Your task to perform on an android device: uninstall "Google Play services" Image 0: 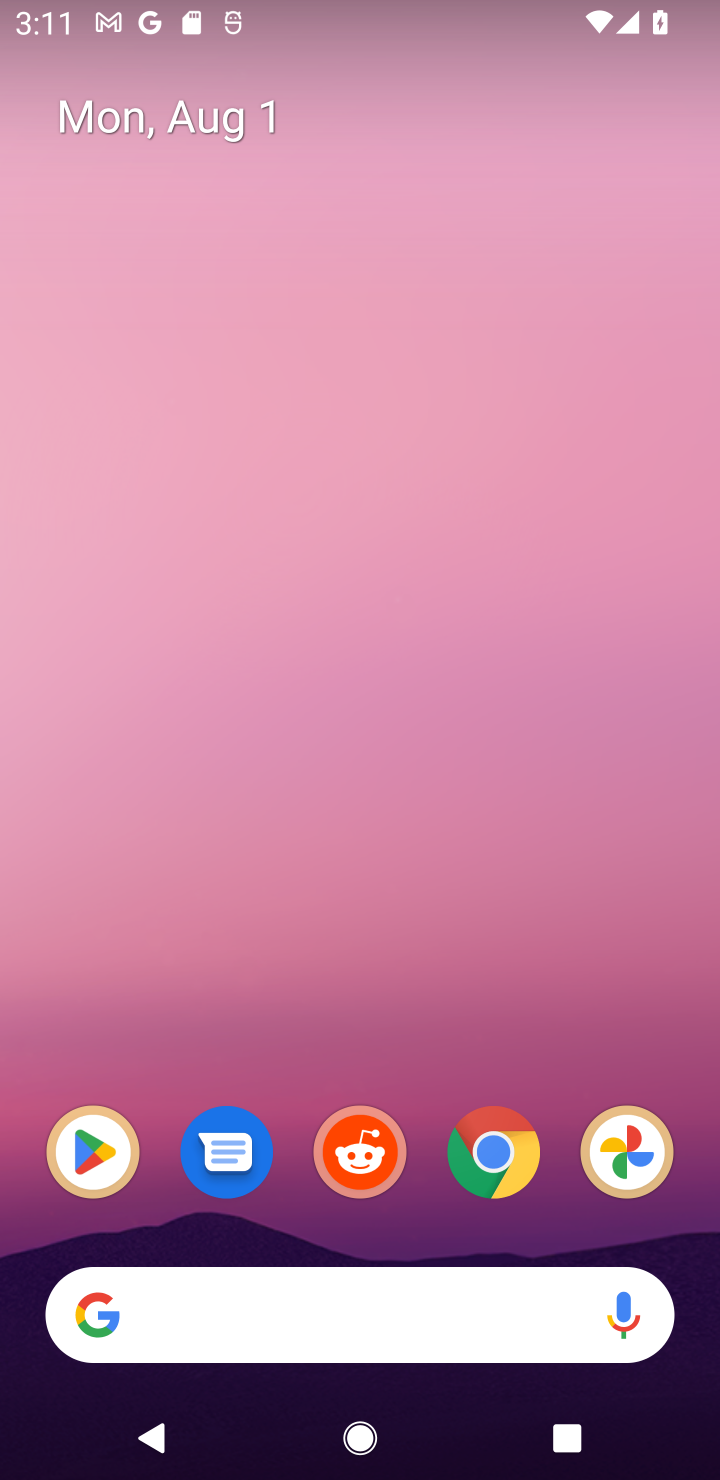
Step 0: click (132, 1152)
Your task to perform on an android device: uninstall "Google Play services" Image 1: 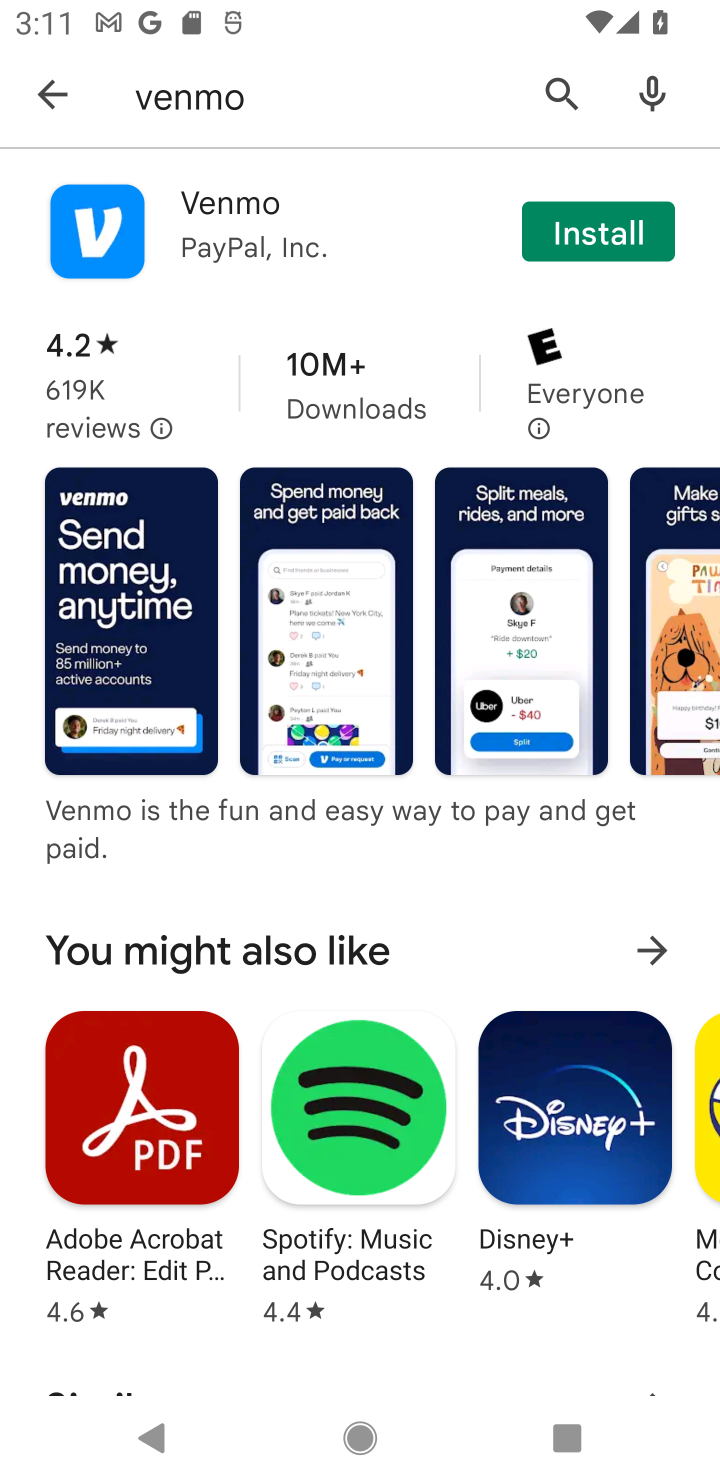
Step 1: click (31, 85)
Your task to perform on an android device: uninstall "Google Play services" Image 2: 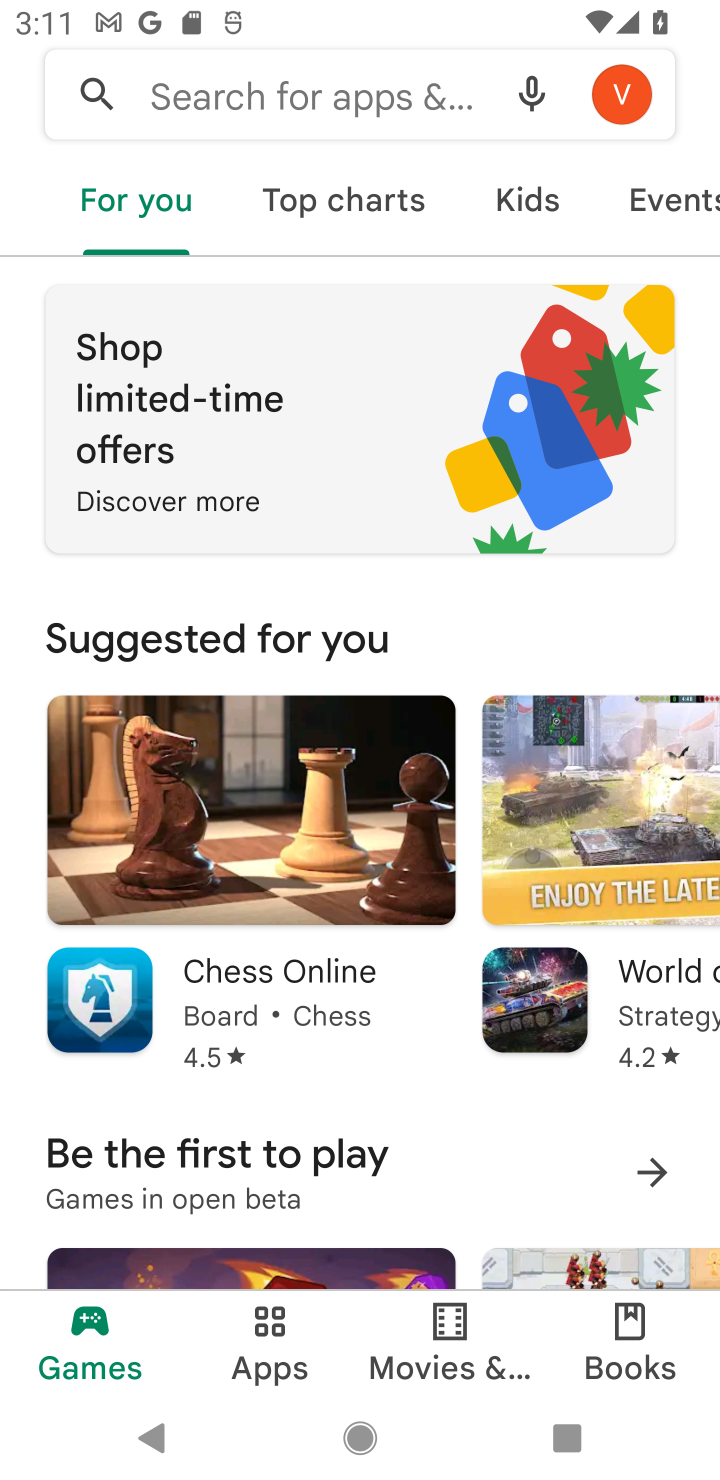
Step 2: click (141, 68)
Your task to perform on an android device: uninstall "Google Play services" Image 3: 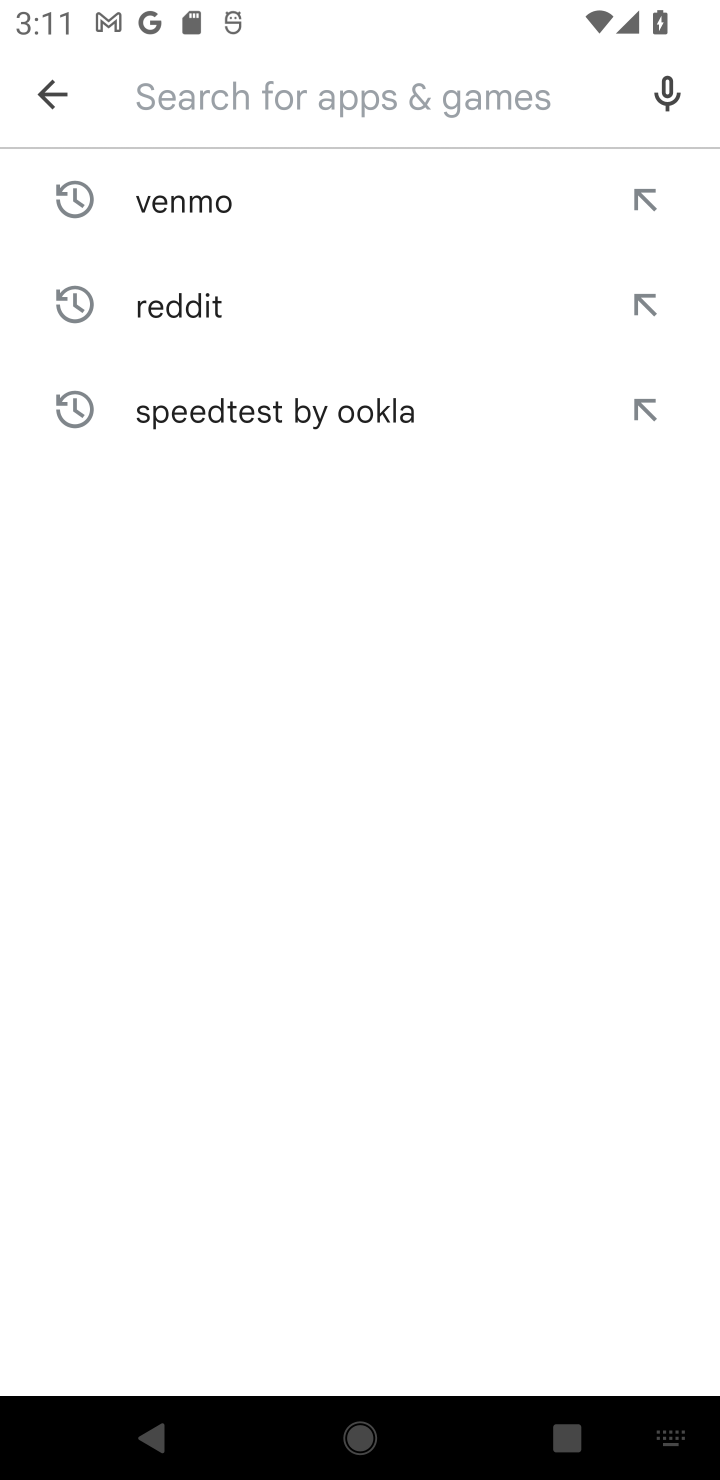
Step 3: click (681, 1371)
Your task to perform on an android device: uninstall "Google Play services" Image 4: 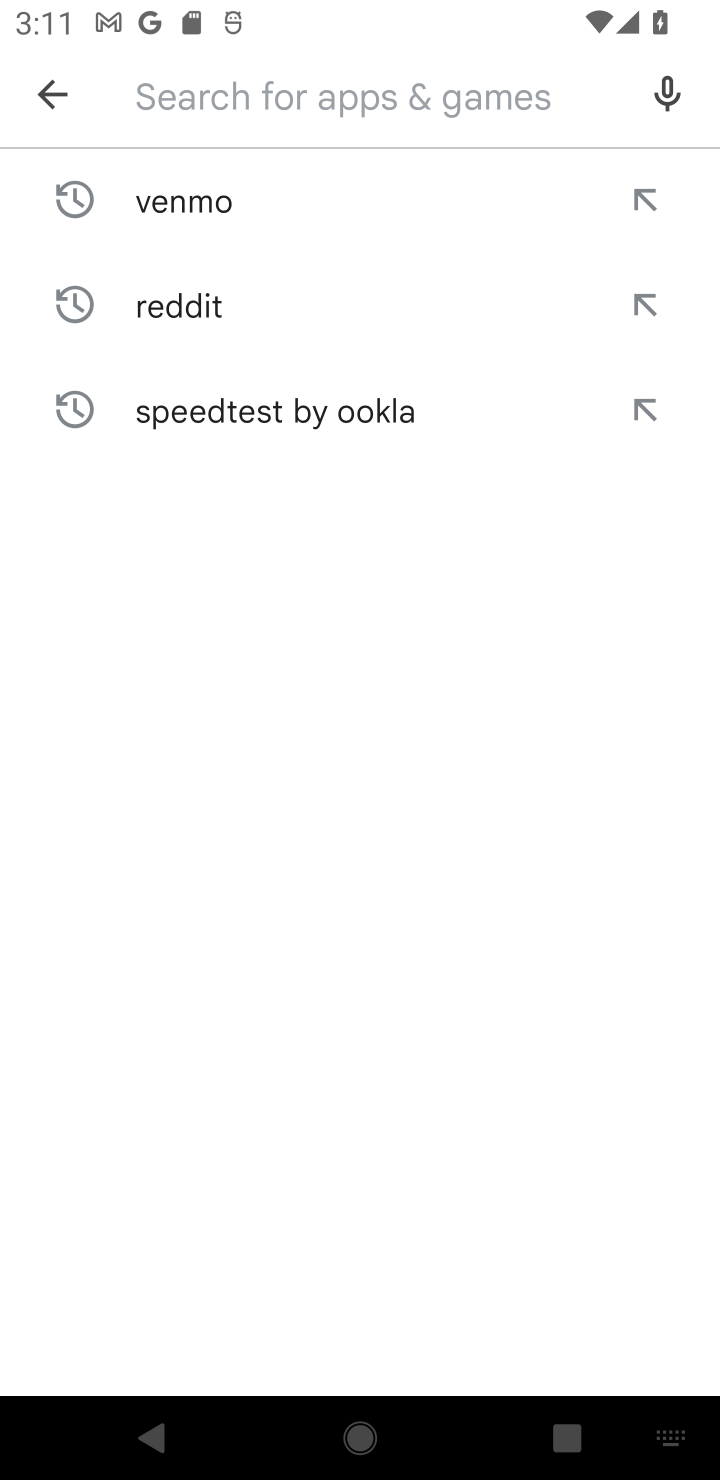
Step 4: type "Google Play services"
Your task to perform on an android device: uninstall "Google Play services" Image 5: 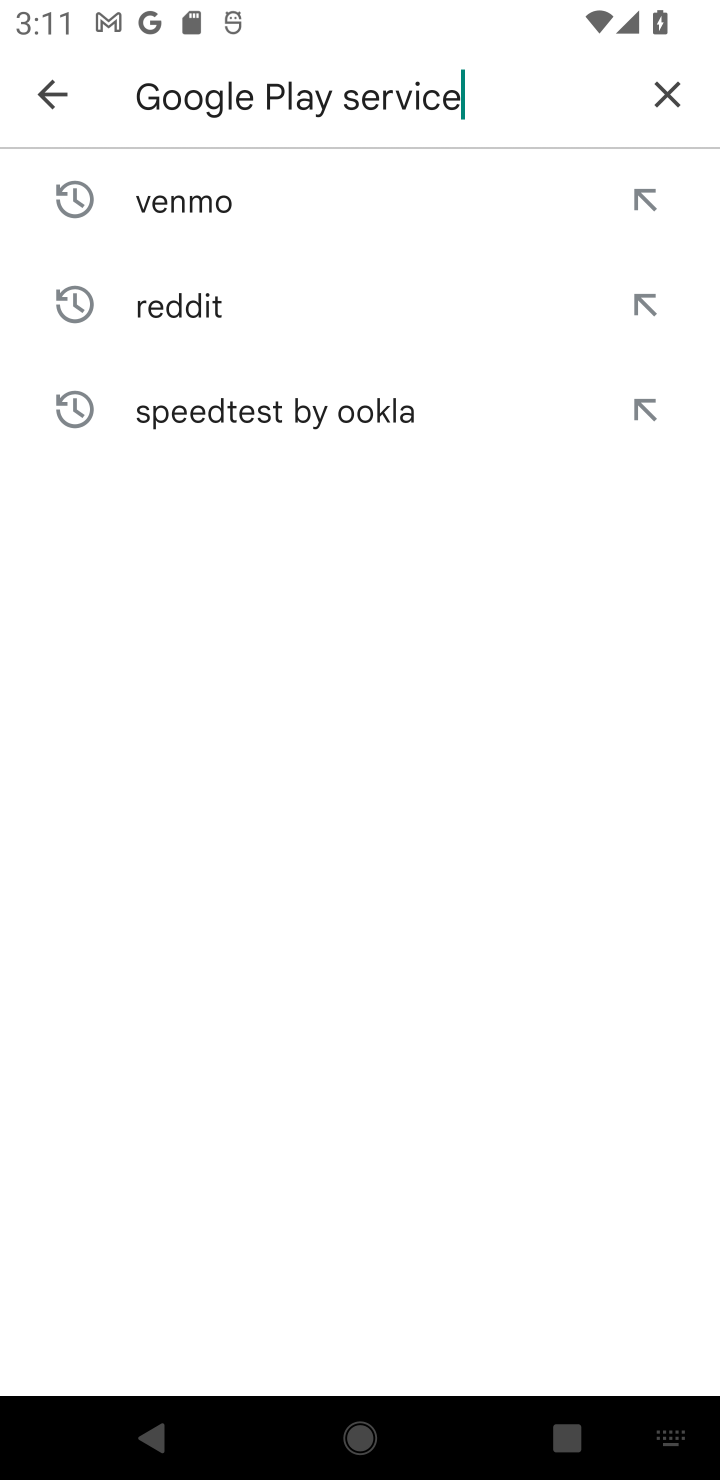
Step 5: drag from (681, 1371) to (716, 346)
Your task to perform on an android device: uninstall "Google Play services" Image 6: 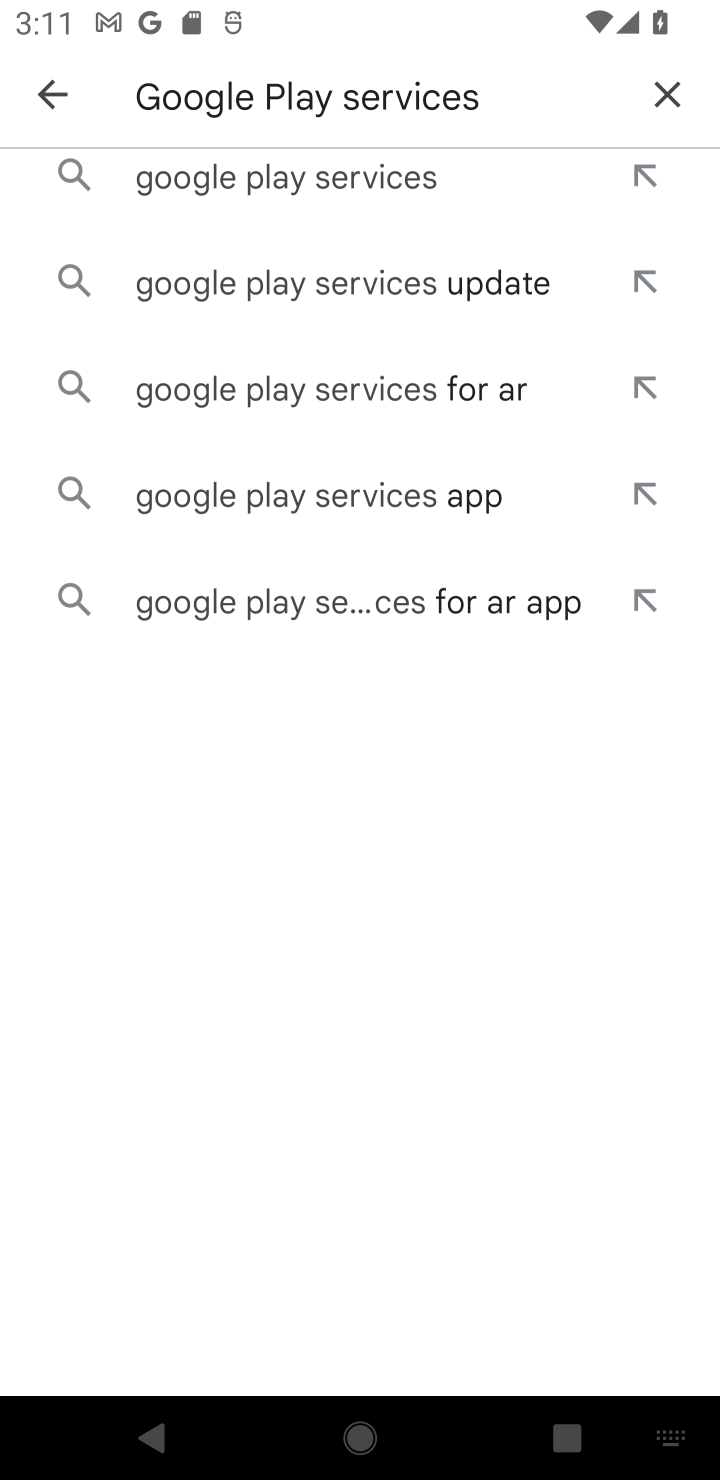
Step 6: click (380, 194)
Your task to perform on an android device: uninstall "Google Play services" Image 7: 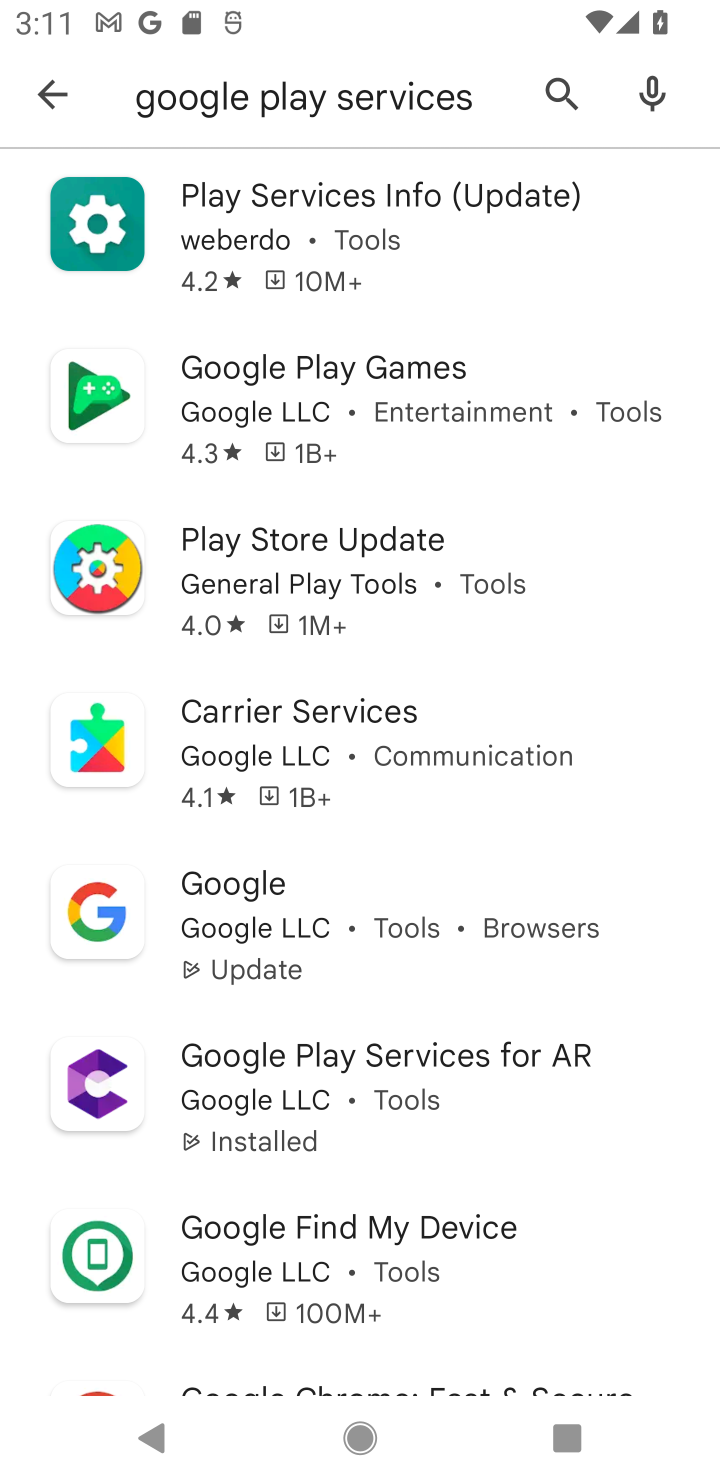
Step 7: task complete